Your task to perform on an android device: Clear all items from cart on walmart. Search for usb-b on walmart, select the first entry, and add it to the cart. Image 0: 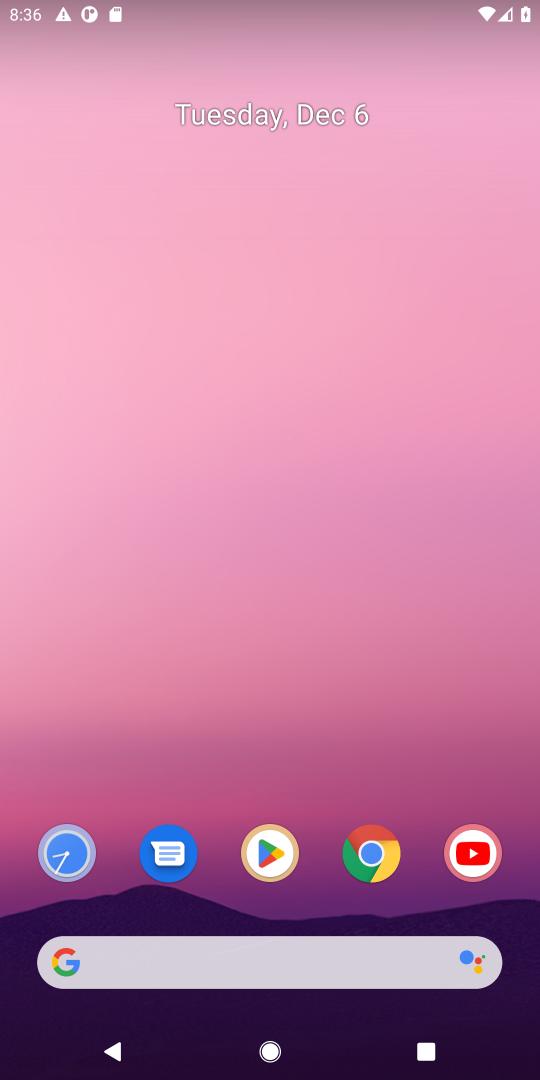
Step 0: drag from (205, 961) to (289, 195)
Your task to perform on an android device: Clear all items from cart on walmart. Search for usb-b on walmart, select the first entry, and add it to the cart. Image 1: 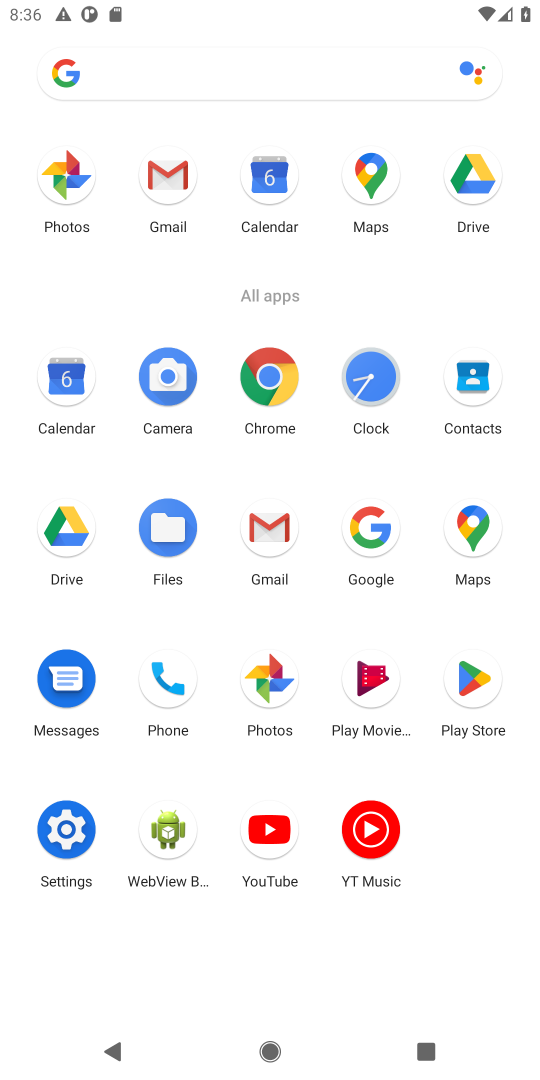
Step 1: click (369, 535)
Your task to perform on an android device: Clear all items from cart on walmart. Search for usb-b on walmart, select the first entry, and add it to the cart. Image 2: 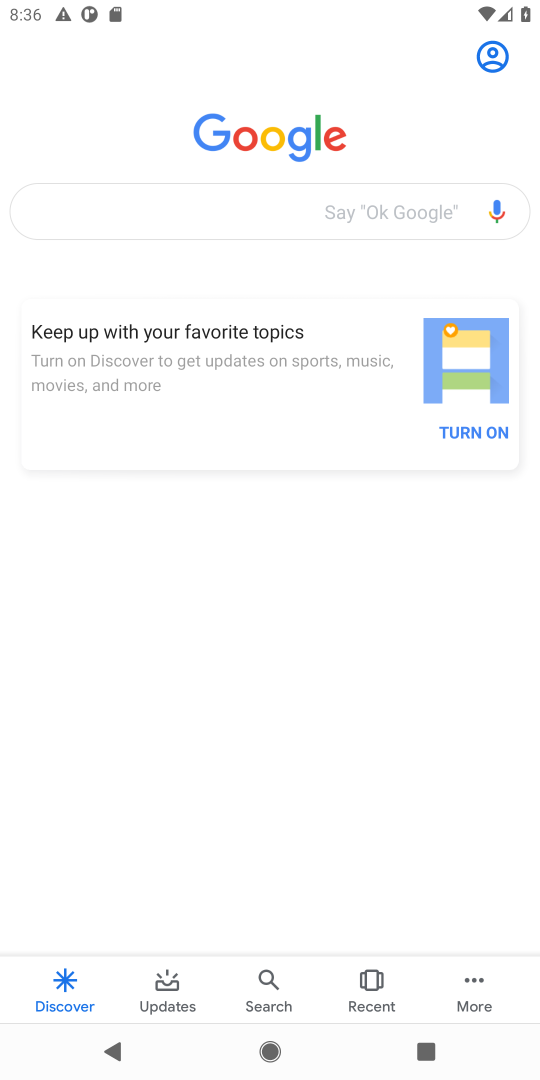
Step 2: click (213, 218)
Your task to perform on an android device: Clear all items from cart on walmart. Search for usb-b on walmart, select the first entry, and add it to the cart. Image 3: 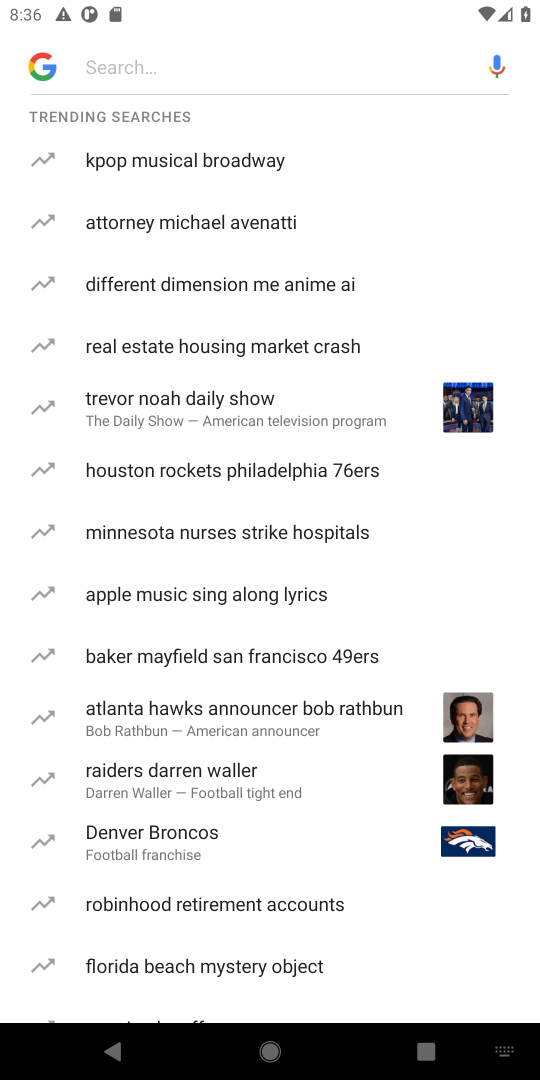
Step 3: type "walmart"
Your task to perform on an android device: Clear all items from cart on walmart. Search for usb-b on walmart, select the first entry, and add it to the cart. Image 4: 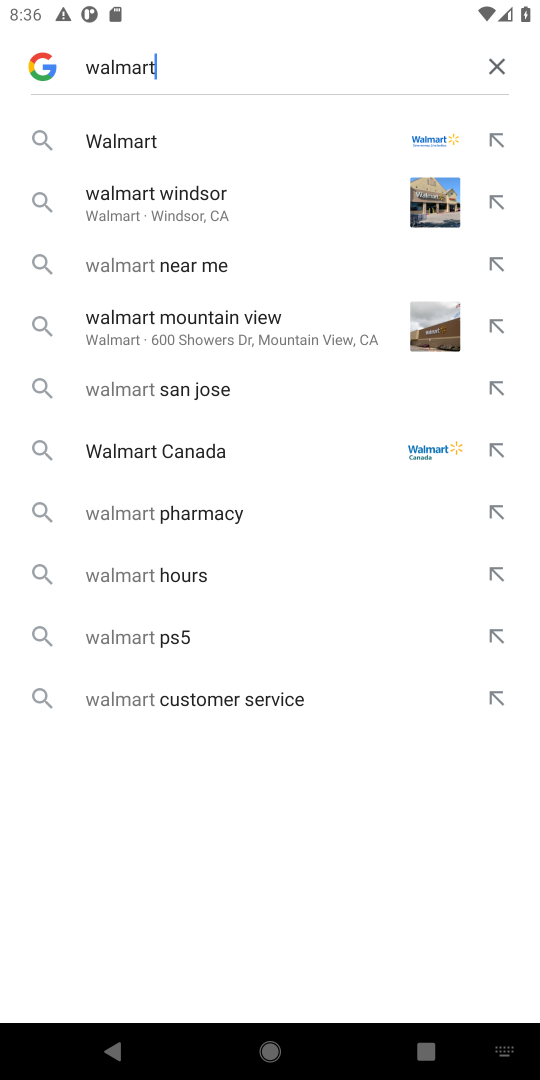
Step 4: click (135, 135)
Your task to perform on an android device: Clear all items from cart on walmart. Search for usb-b on walmart, select the first entry, and add it to the cart. Image 5: 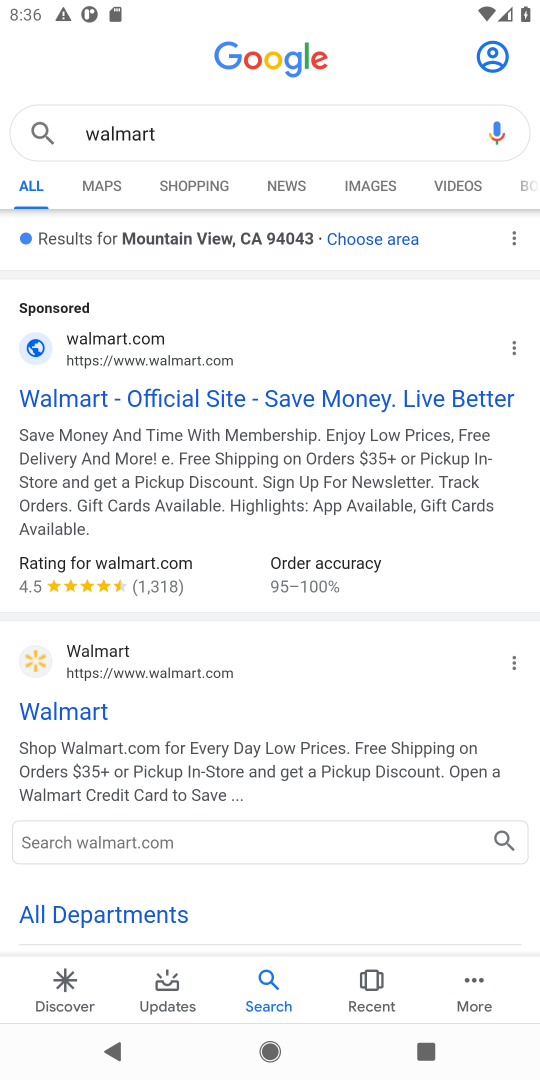
Step 5: click (198, 406)
Your task to perform on an android device: Clear all items from cart on walmart. Search for usb-b on walmart, select the first entry, and add it to the cart. Image 6: 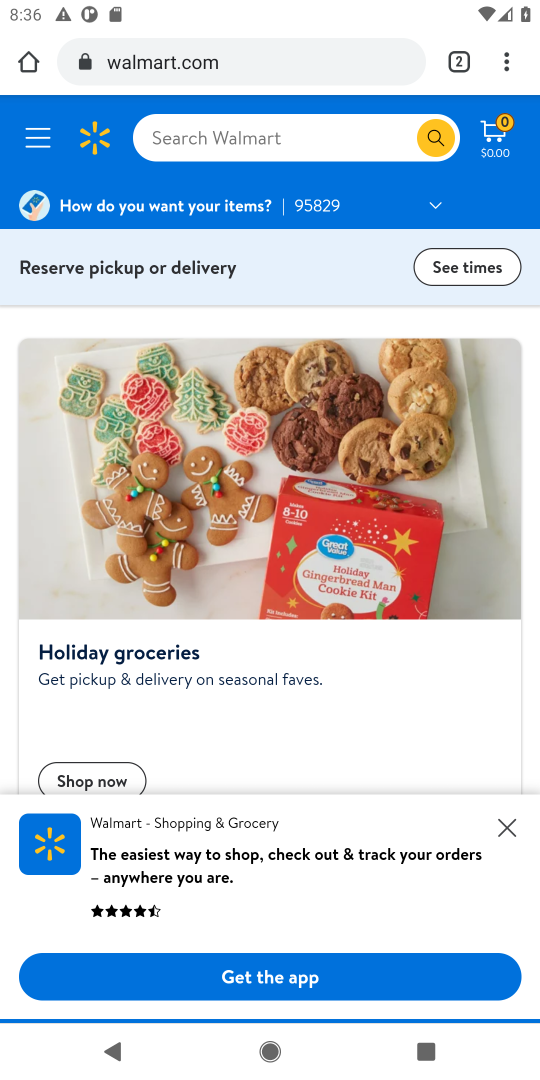
Step 6: click (274, 135)
Your task to perform on an android device: Clear all items from cart on walmart. Search for usb-b on walmart, select the first entry, and add it to the cart. Image 7: 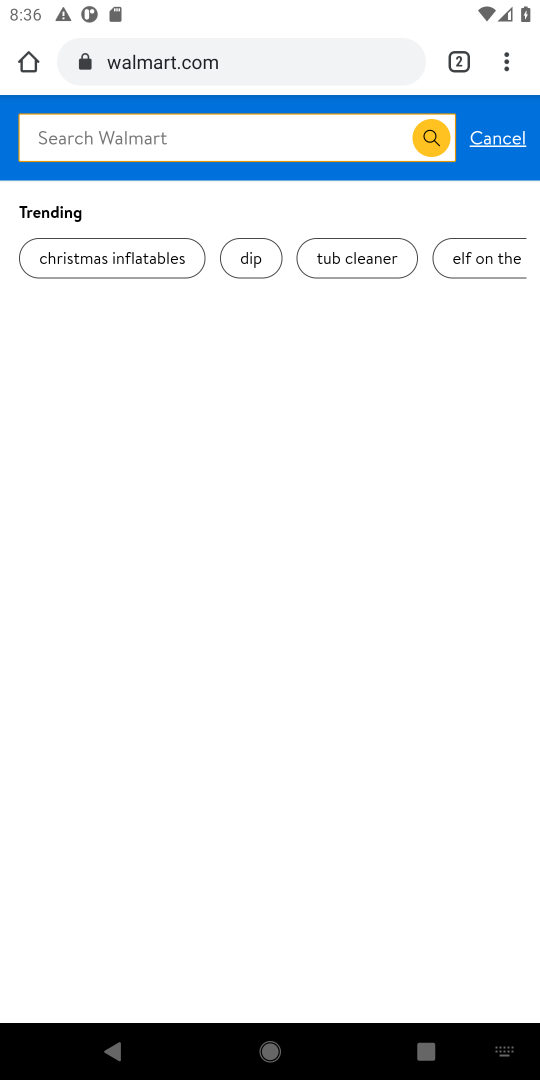
Step 7: type "usb-b"
Your task to perform on an android device: Clear all items from cart on walmart. Search for usb-b on walmart, select the first entry, and add it to the cart. Image 8: 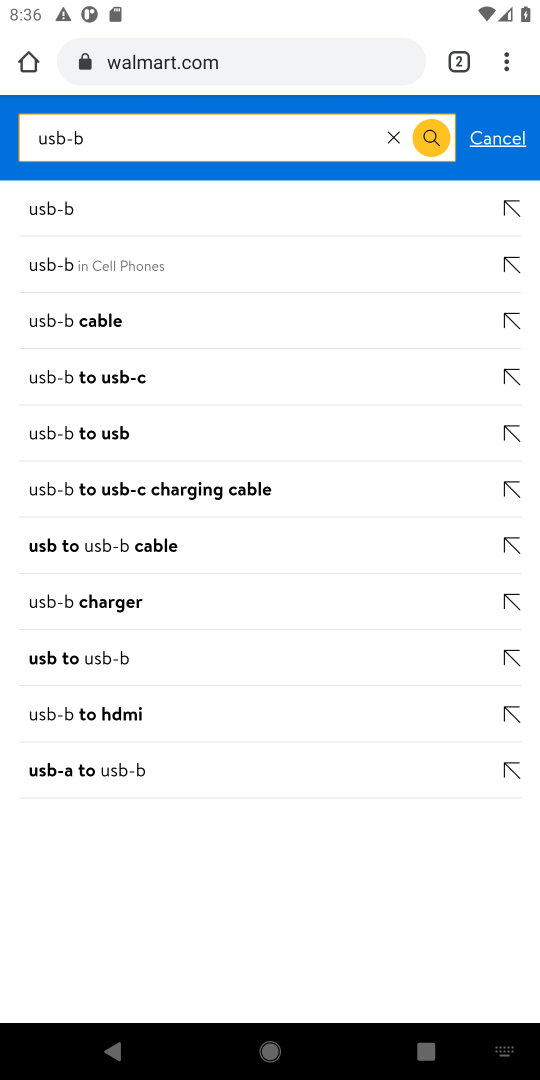
Step 8: click (24, 210)
Your task to perform on an android device: Clear all items from cart on walmart. Search for usb-b on walmart, select the first entry, and add it to the cart. Image 9: 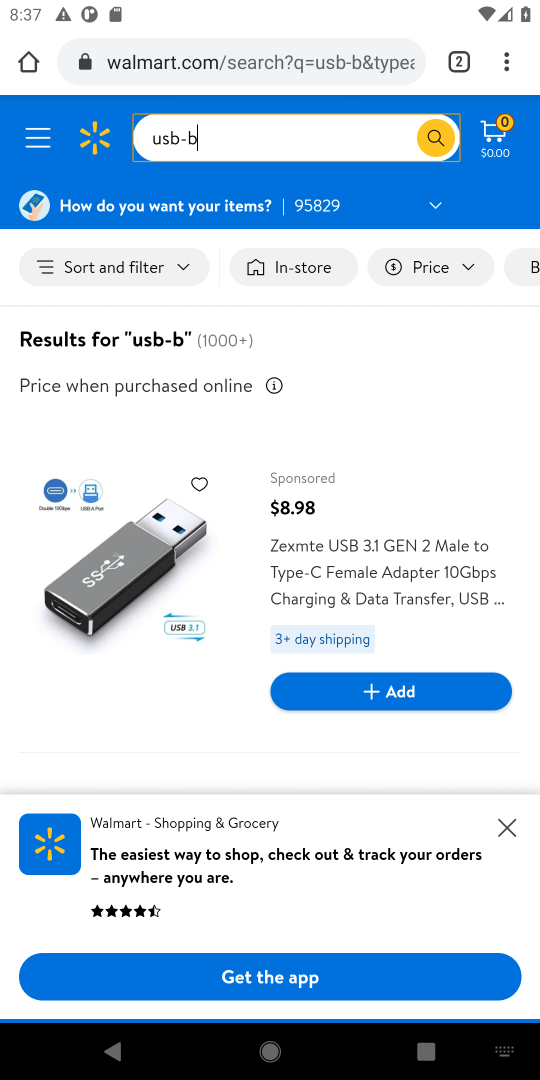
Step 9: click (328, 695)
Your task to perform on an android device: Clear all items from cart on walmart. Search for usb-b on walmart, select the first entry, and add it to the cart. Image 10: 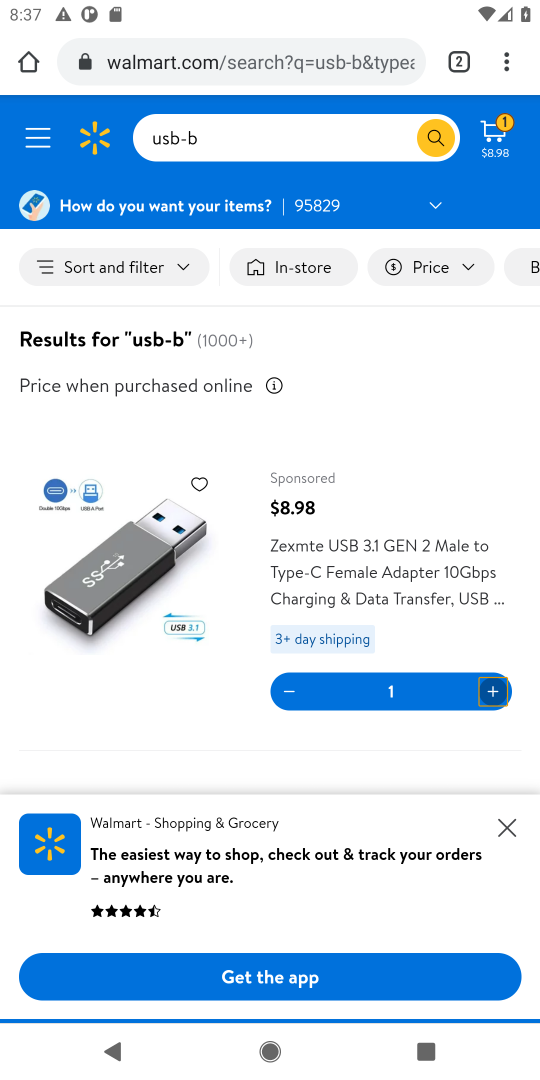
Step 10: task complete